Your task to perform on an android device: Open the Play Movies app and select the watchlist tab. Image 0: 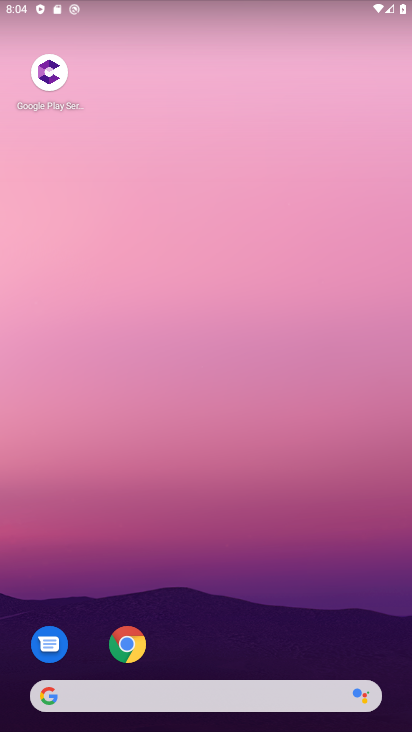
Step 0: drag from (193, 700) to (246, 243)
Your task to perform on an android device: Open the Play Movies app and select the watchlist tab. Image 1: 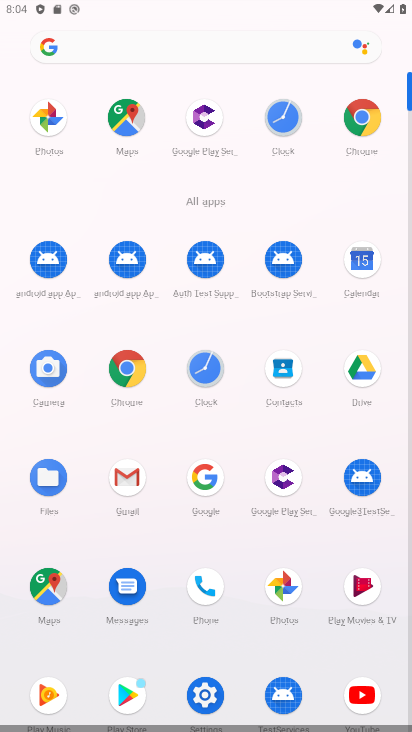
Step 1: click (370, 598)
Your task to perform on an android device: Open the Play Movies app and select the watchlist tab. Image 2: 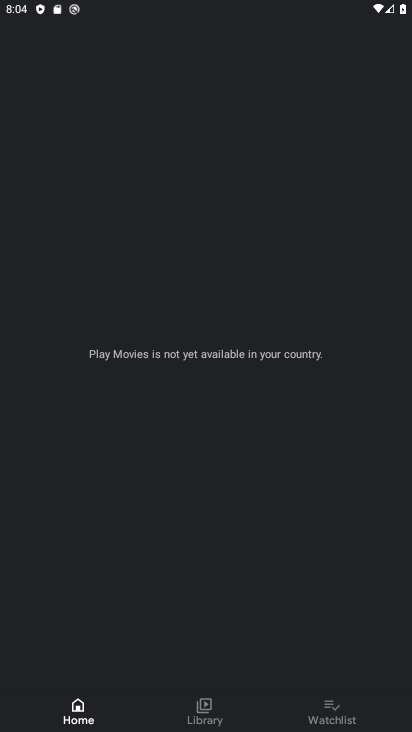
Step 2: click (341, 721)
Your task to perform on an android device: Open the Play Movies app and select the watchlist tab. Image 3: 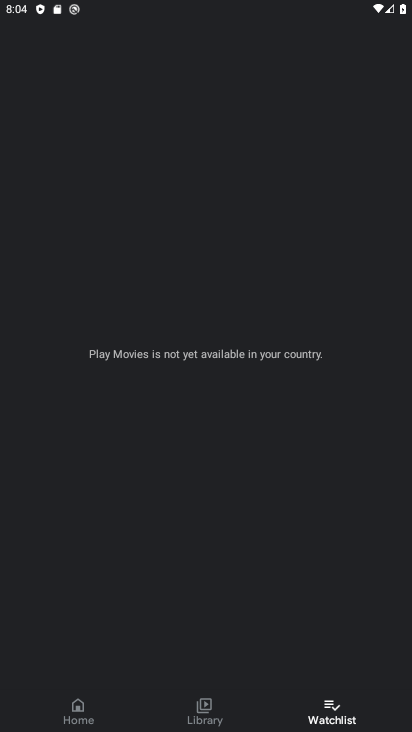
Step 3: task complete